Your task to perform on an android device: toggle airplane mode Image 0: 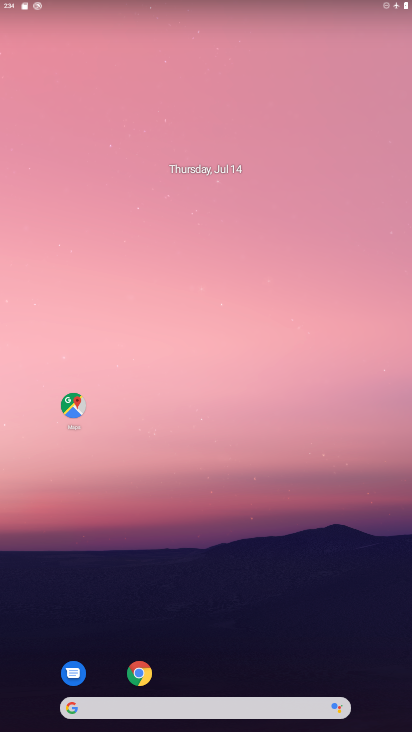
Step 0: drag from (218, 685) to (248, 205)
Your task to perform on an android device: toggle airplane mode Image 1: 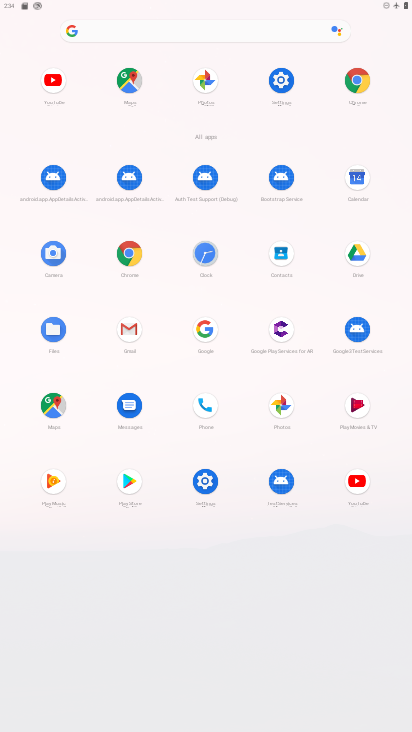
Step 1: click (209, 482)
Your task to perform on an android device: toggle airplane mode Image 2: 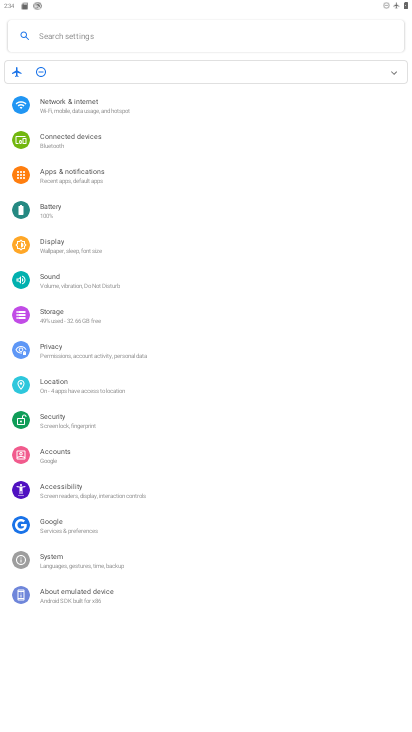
Step 2: click (154, 105)
Your task to perform on an android device: toggle airplane mode Image 3: 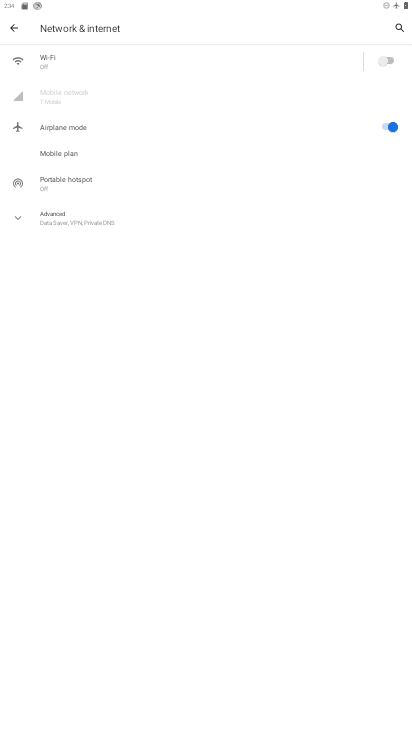
Step 3: click (378, 119)
Your task to perform on an android device: toggle airplane mode Image 4: 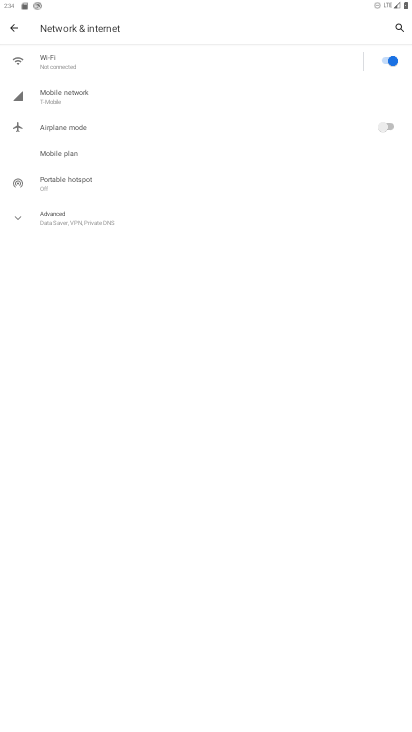
Step 4: task complete